Your task to perform on an android device: Open Google Chrome and click the shortcut for Amazon.com Image 0: 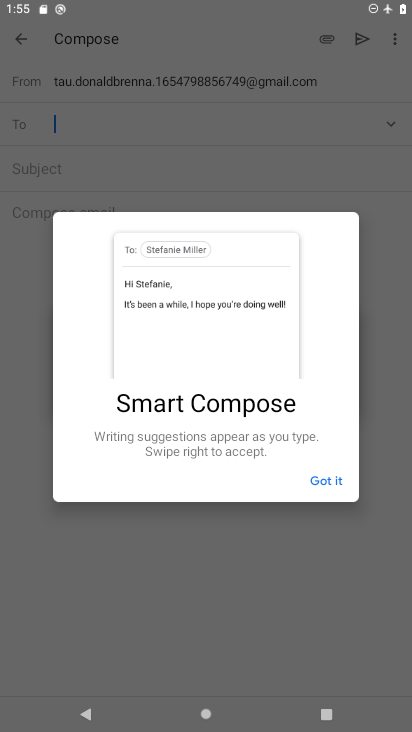
Step 0: press home button
Your task to perform on an android device: Open Google Chrome and click the shortcut for Amazon.com Image 1: 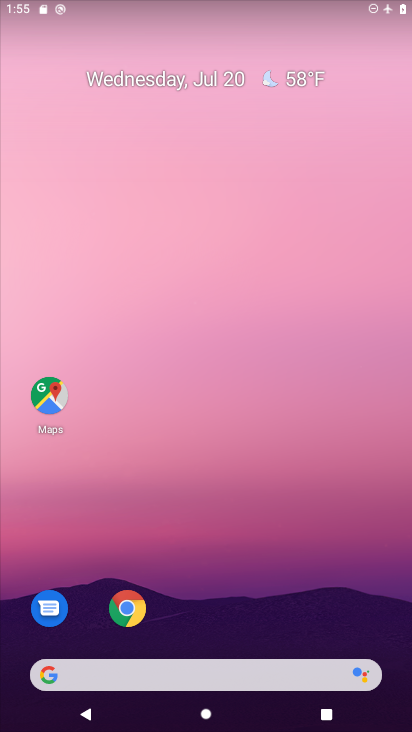
Step 1: drag from (253, 676) to (279, 229)
Your task to perform on an android device: Open Google Chrome and click the shortcut for Amazon.com Image 2: 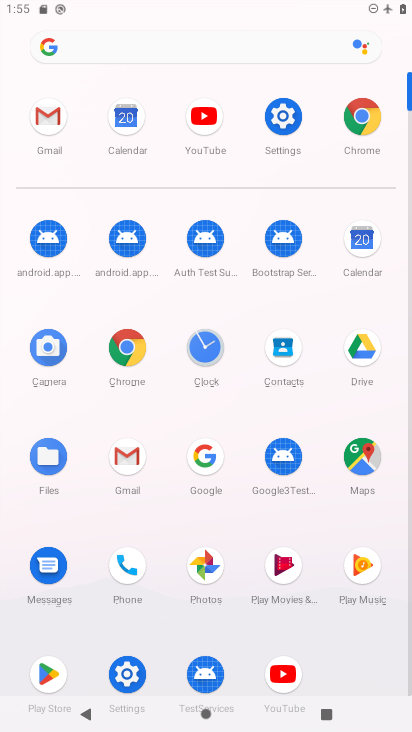
Step 2: click (124, 344)
Your task to perform on an android device: Open Google Chrome and click the shortcut for Amazon.com Image 3: 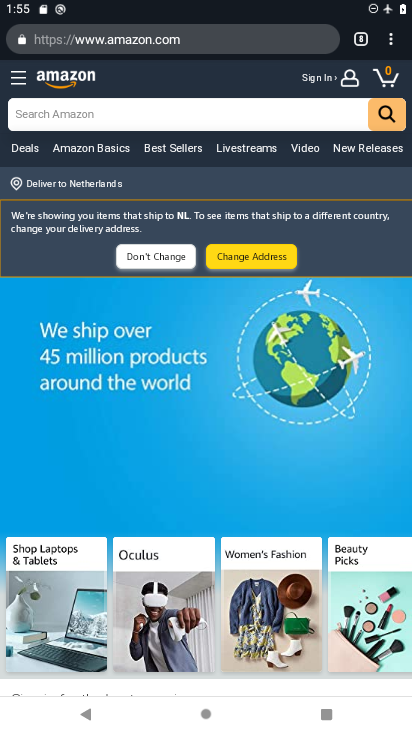
Step 3: task complete